Your task to perform on an android device: Open the calendar app, open the side menu, and click the "Day" option Image 0: 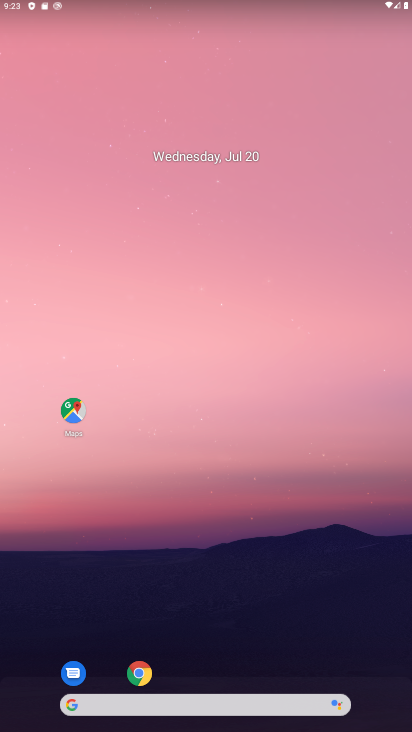
Step 0: drag from (148, 707) to (203, 185)
Your task to perform on an android device: Open the calendar app, open the side menu, and click the "Day" option Image 1: 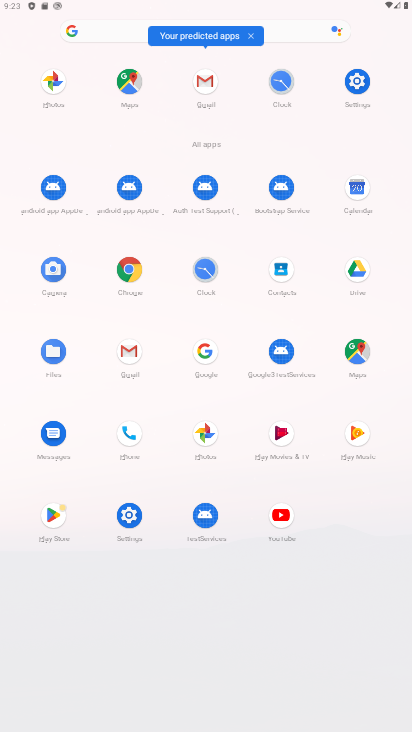
Step 1: click (359, 187)
Your task to perform on an android device: Open the calendar app, open the side menu, and click the "Day" option Image 2: 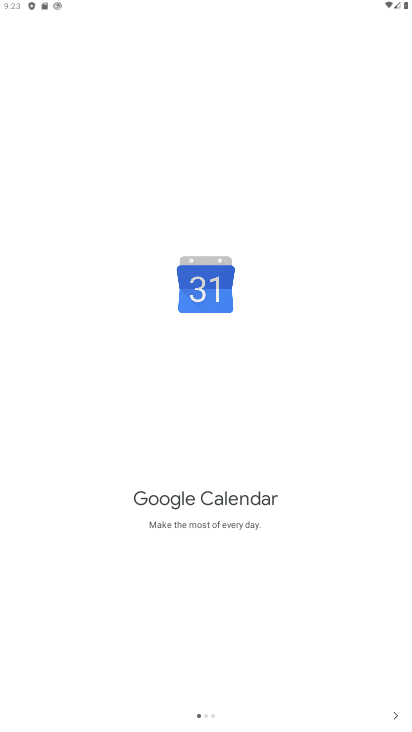
Step 2: click (399, 713)
Your task to perform on an android device: Open the calendar app, open the side menu, and click the "Day" option Image 3: 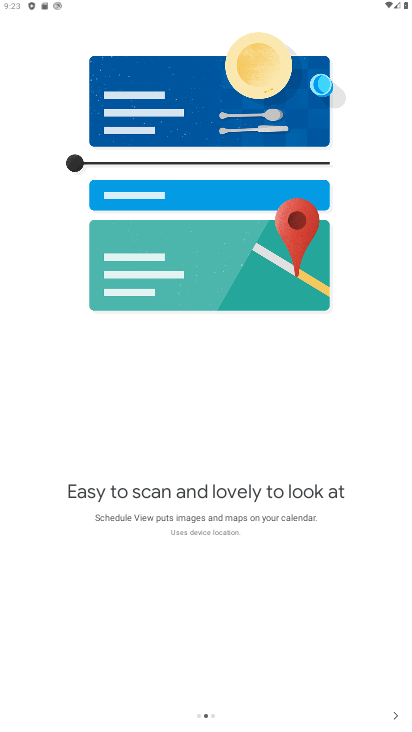
Step 3: click (399, 713)
Your task to perform on an android device: Open the calendar app, open the side menu, and click the "Day" option Image 4: 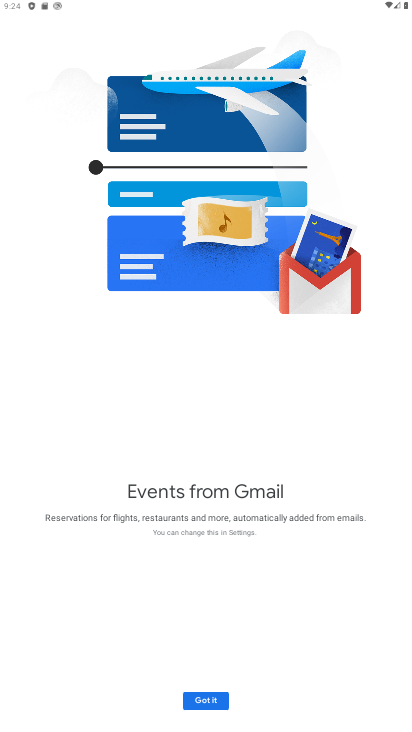
Step 4: click (207, 701)
Your task to perform on an android device: Open the calendar app, open the side menu, and click the "Day" option Image 5: 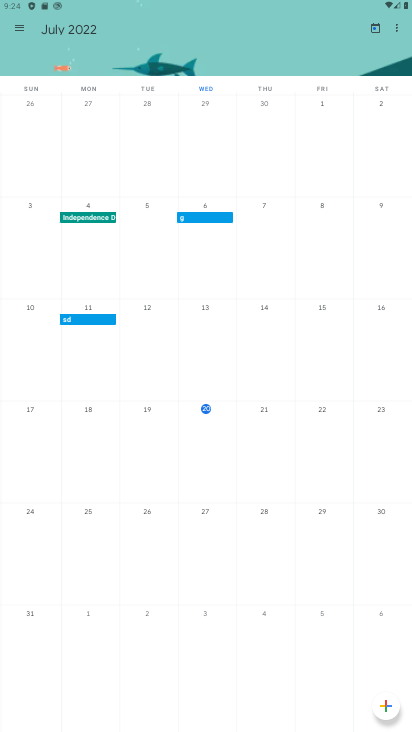
Step 5: click (19, 27)
Your task to perform on an android device: Open the calendar app, open the side menu, and click the "Day" option Image 6: 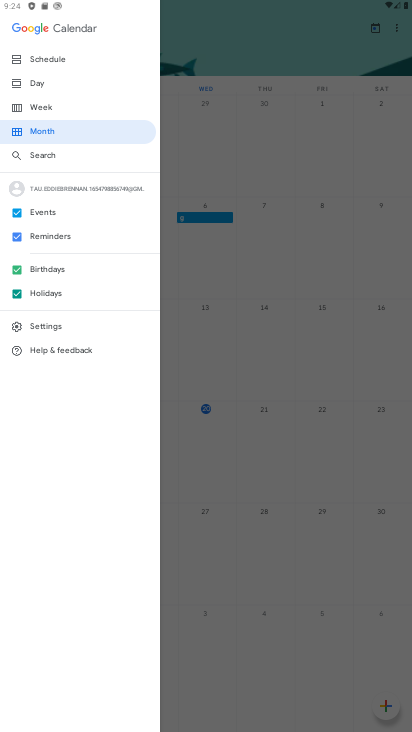
Step 6: click (40, 82)
Your task to perform on an android device: Open the calendar app, open the side menu, and click the "Day" option Image 7: 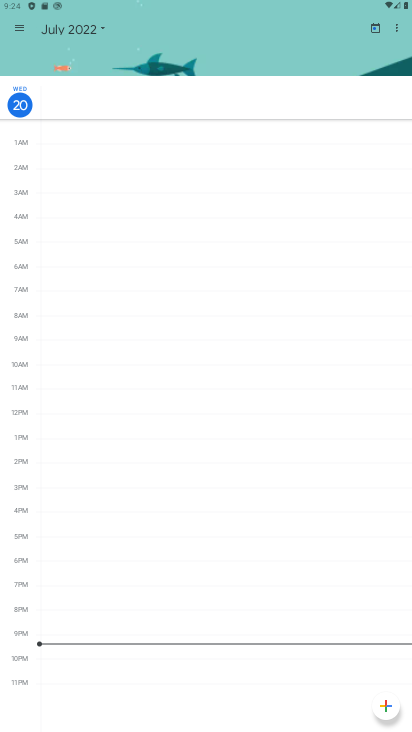
Step 7: task complete